Your task to perform on an android device: turn notification dots on Image 0: 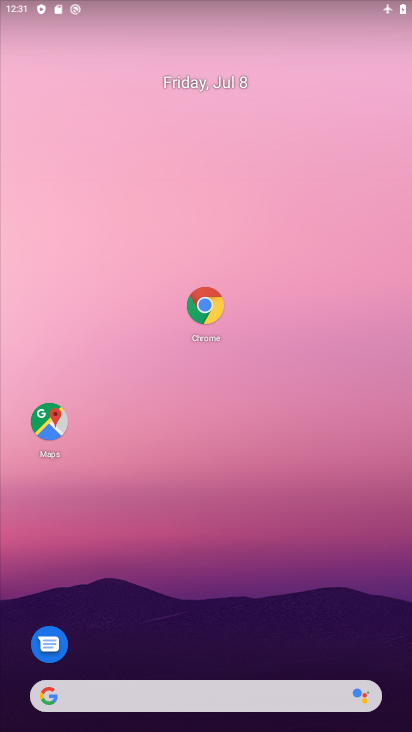
Step 0: drag from (218, 377) to (224, 71)
Your task to perform on an android device: turn notification dots on Image 1: 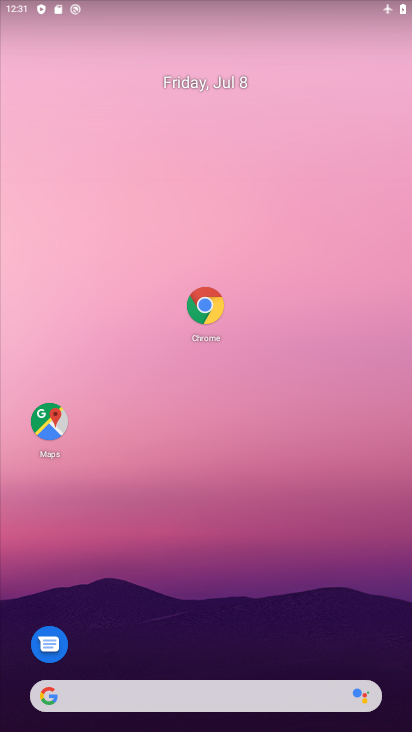
Step 1: drag from (183, 677) to (198, 166)
Your task to perform on an android device: turn notification dots on Image 2: 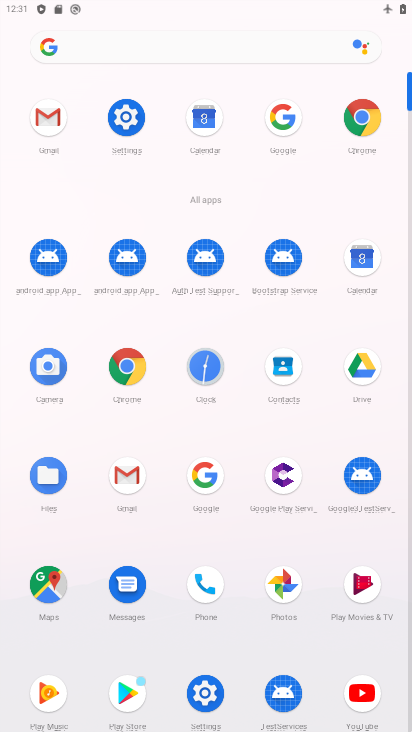
Step 2: click (131, 118)
Your task to perform on an android device: turn notification dots on Image 3: 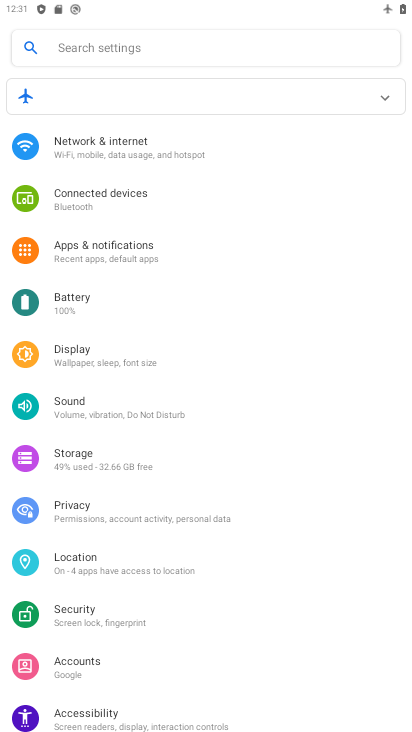
Step 3: click (122, 258)
Your task to perform on an android device: turn notification dots on Image 4: 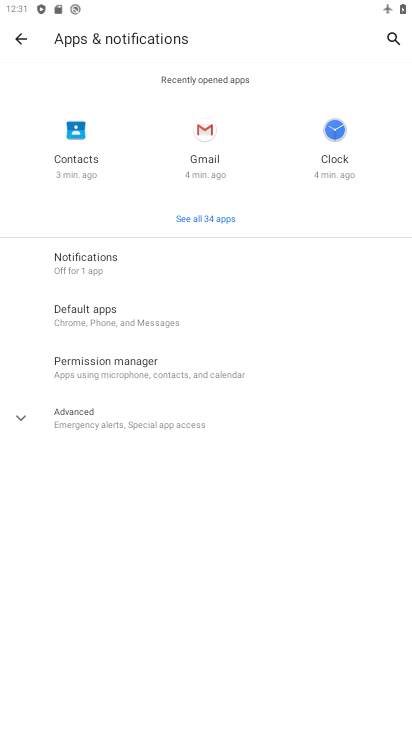
Step 4: click (94, 258)
Your task to perform on an android device: turn notification dots on Image 5: 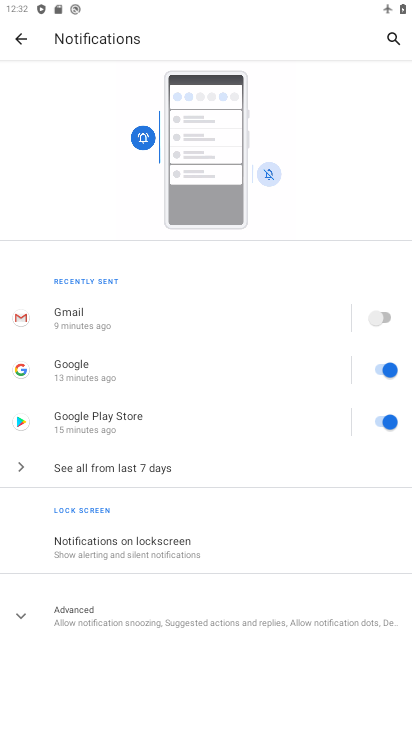
Step 5: drag from (199, 582) to (220, 168)
Your task to perform on an android device: turn notification dots on Image 6: 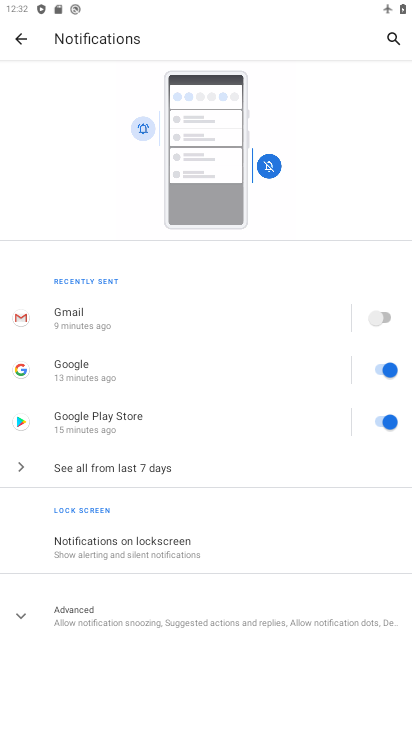
Step 6: click (67, 616)
Your task to perform on an android device: turn notification dots on Image 7: 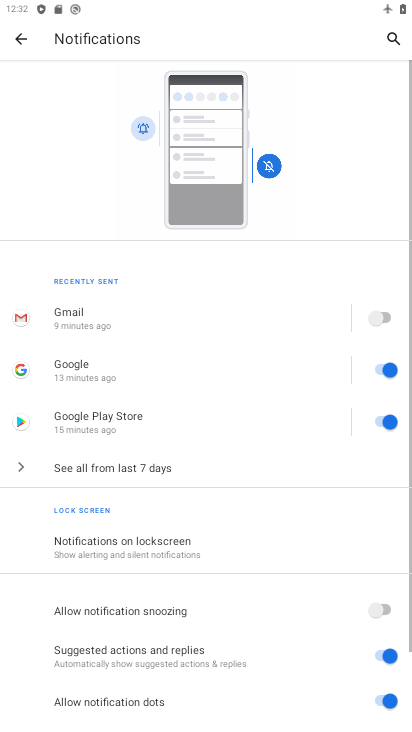
Step 7: task complete